Your task to perform on an android device: Look up the best rated kitchen knives on Amazon. Image 0: 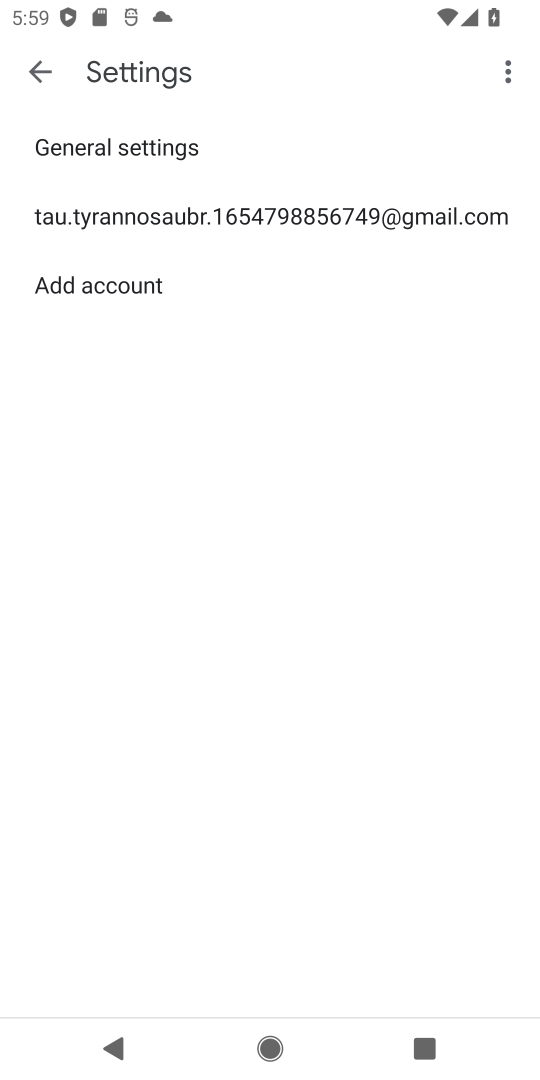
Step 0: press home button
Your task to perform on an android device: Look up the best rated kitchen knives on Amazon. Image 1: 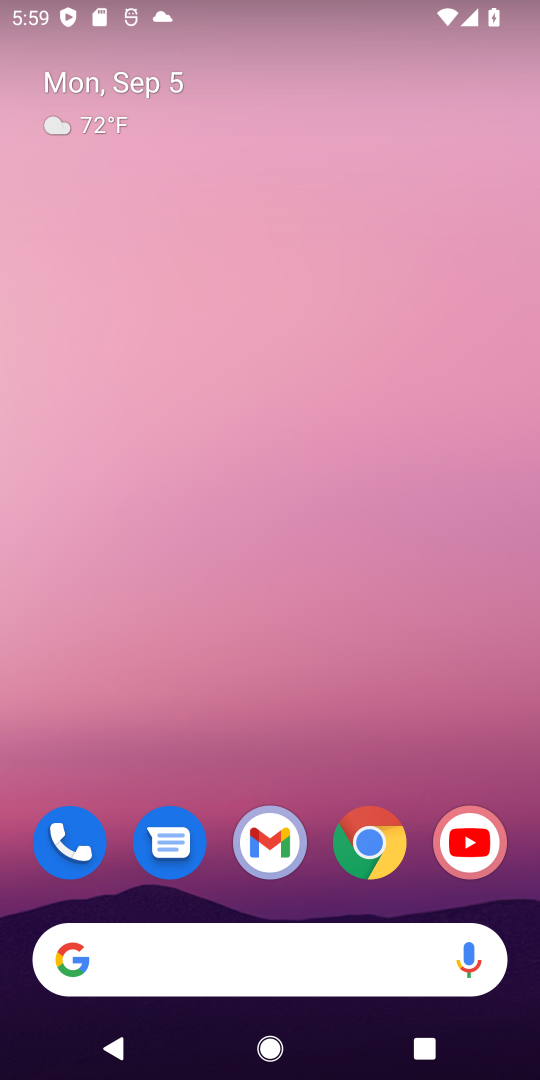
Step 1: click (370, 845)
Your task to perform on an android device: Look up the best rated kitchen knives on Amazon. Image 2: 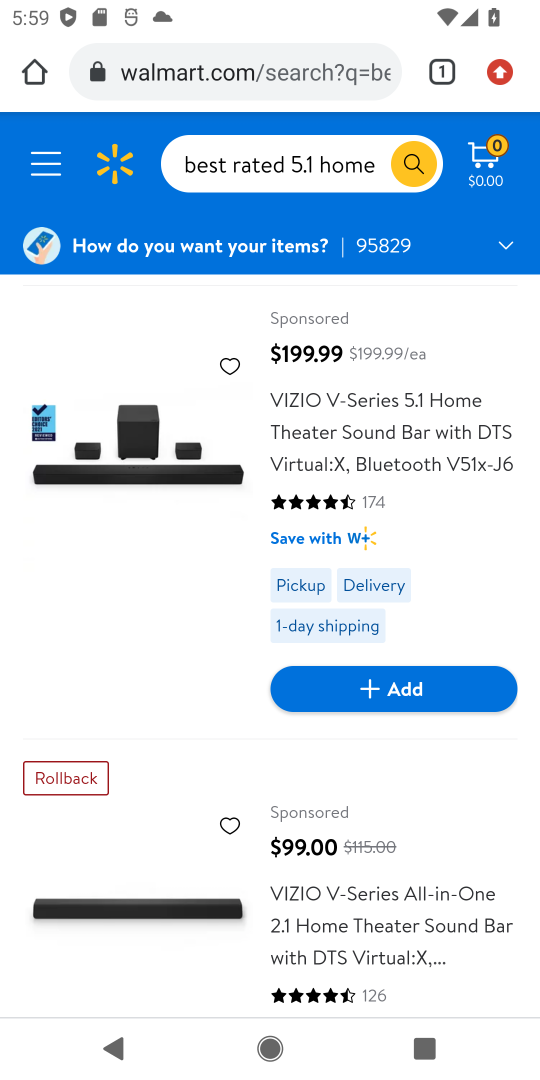
Step 2: click (237, 68)
Your task to perform on an android device: Look up the best rated kitchen knives on Amazon. Image 3: 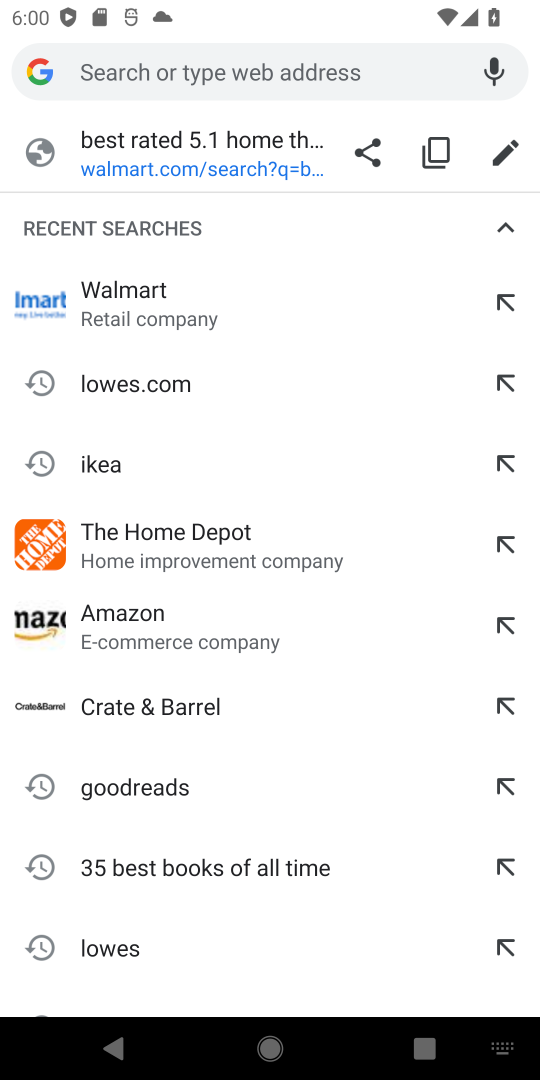
Step 3: type "Amazon"
Your task to perform on an android device: Look up the best rated kitchen knives on Amazon. Image 4: 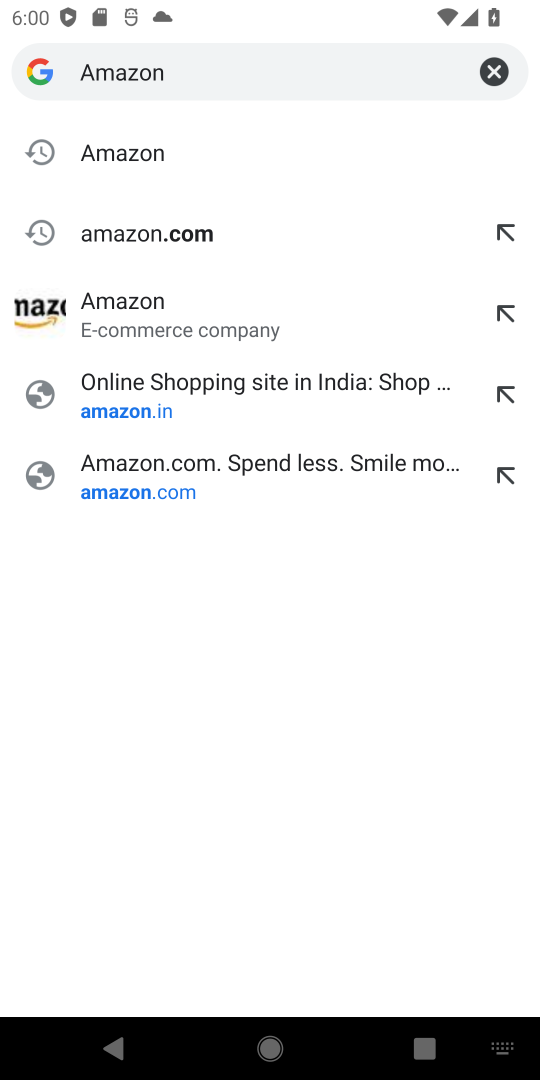
Step 4: click (125, 160)
Your task to perform on an android device: Look up the best rated kitchen knives on Amazon. Image 5: 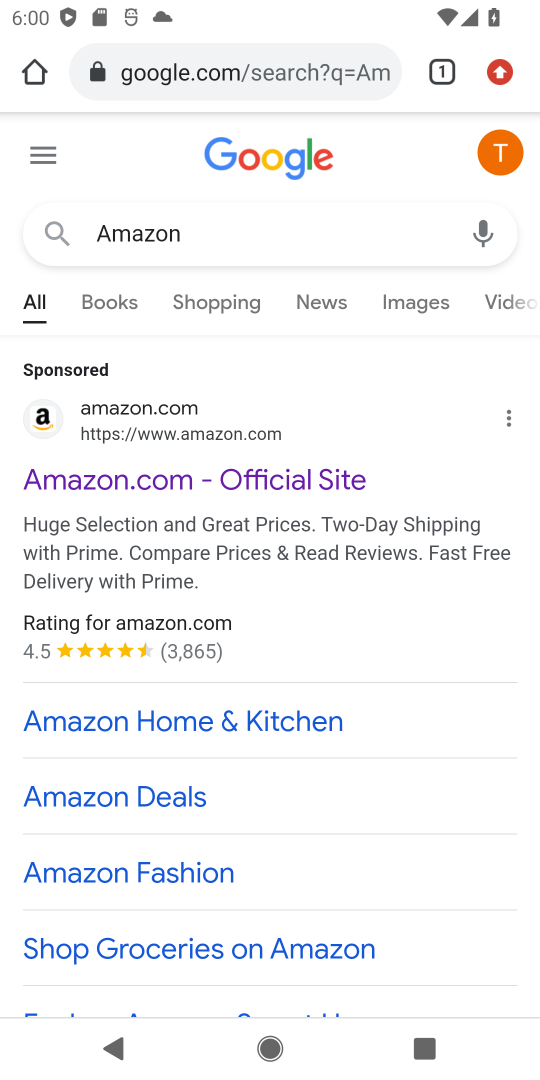
Step 5: drag from (303, 656) to (340, 221)
Your task to perform on an android device: Look up the best rated kitchen knives on Amazon. Image 6: 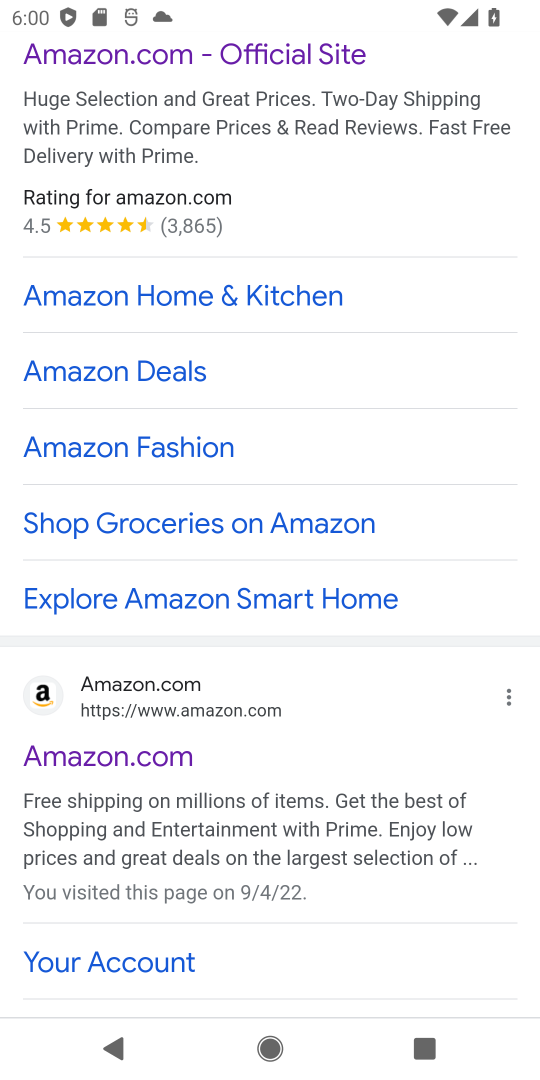
Step 6: click (207, 771)
Your task to perform on an android device: Look up the best rated kitchen knives on Amazon. Image 7: 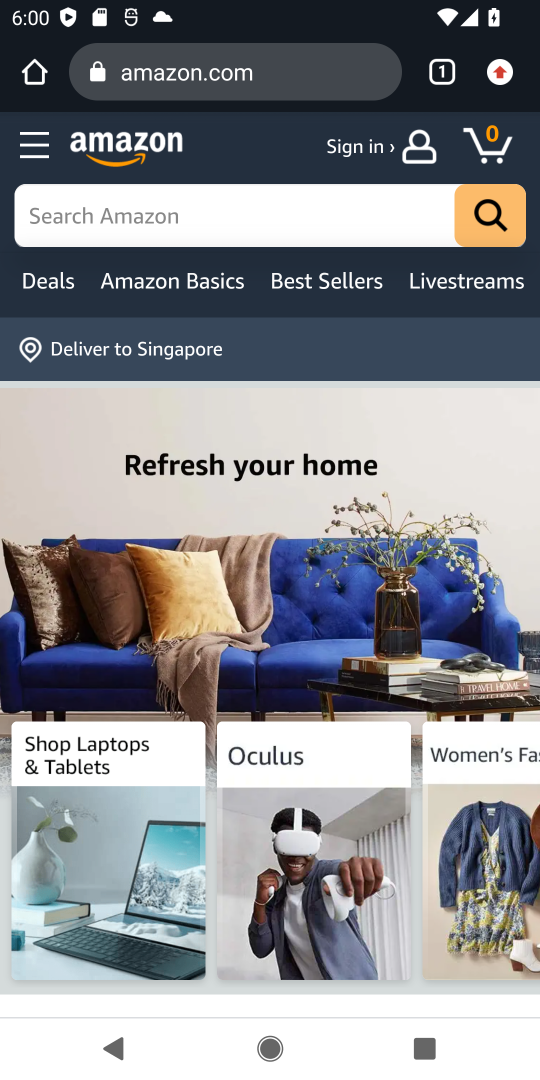
Step 7: click (228, 212)
Your task to perform on an android device: Look up the best rated kitchen knives on Amazon. Image 8: 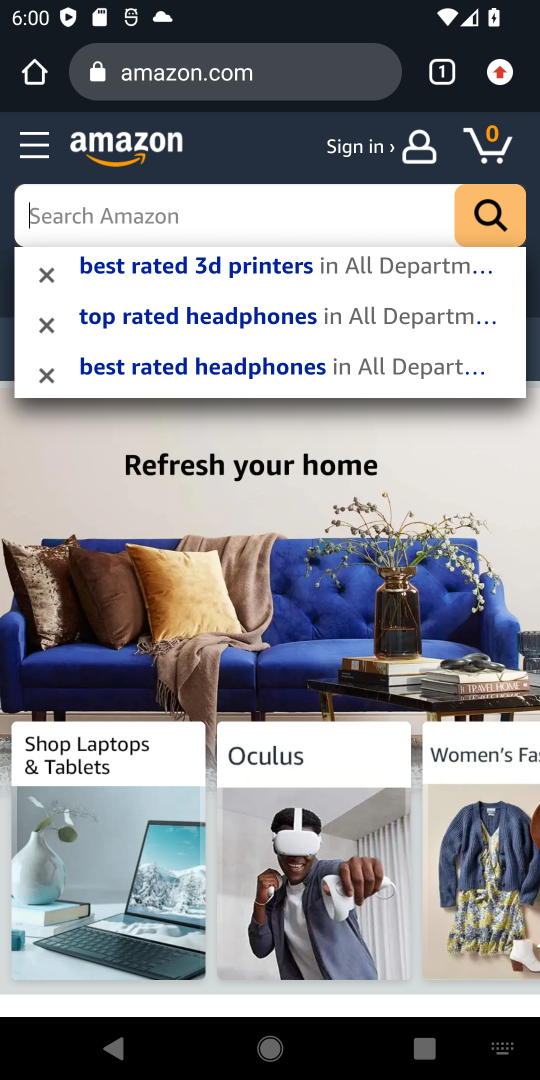
Step 8: click (224, 200)
Your task to perform on an android device: Look up the best rated kitchen knives on Amazon. Image 9: 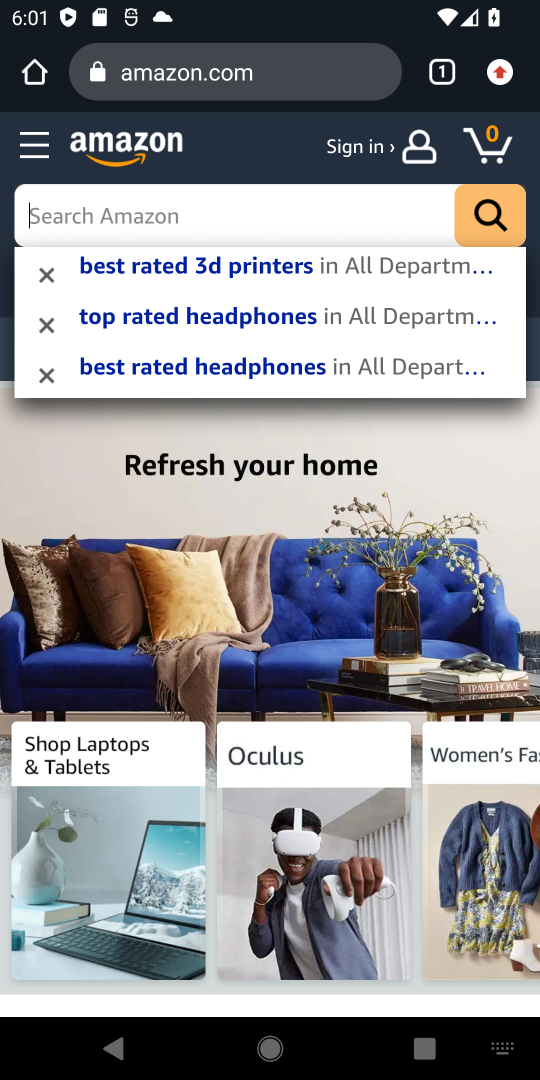
Step 9: type "best rated kitchen knives"
Your task to perform on an android device: Look up the best rated kitchen knives on Amazon. Image 10: 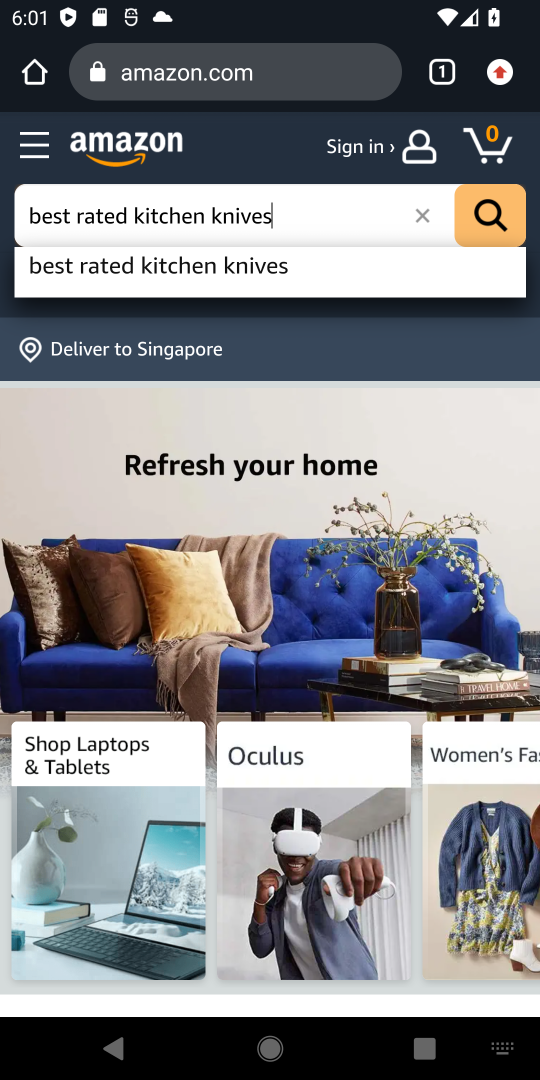
Step 10: click (483, 218)
Your task to perform on an android device: Look up the best rated kitchen knives on Amazon. Image 11: 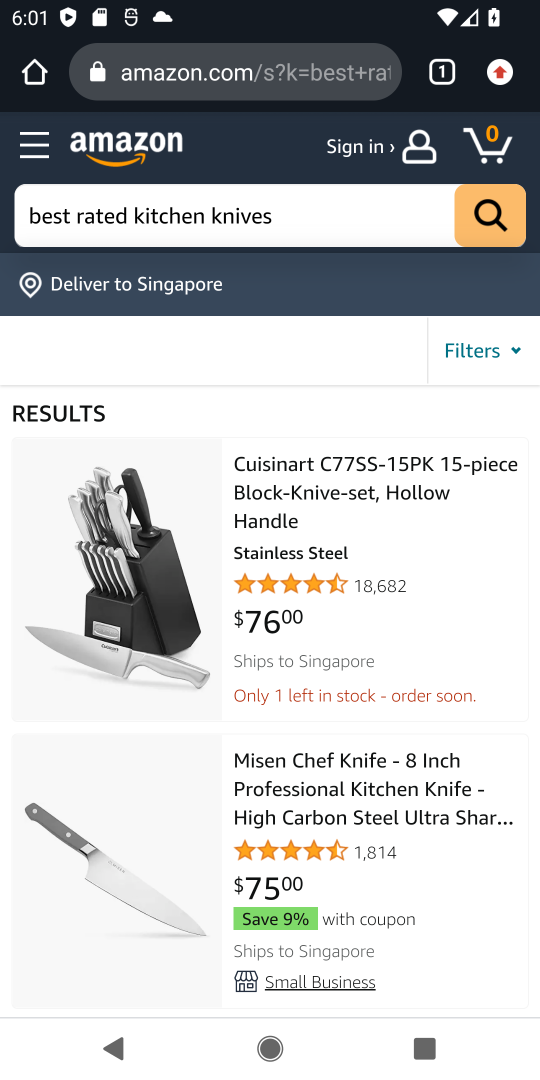
Step 11: task complete